Your task to perform on an android device: search for starred emails in the gmail app Image 0: 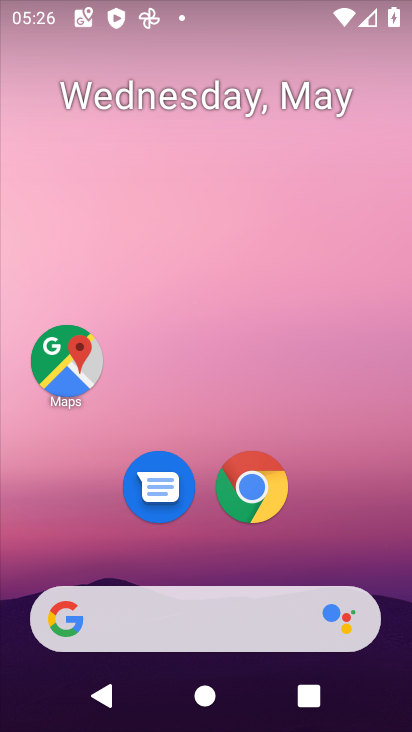
Step 0: drag from (369, 484) to (336, 177)
Your task to perform on an android device: search for starred emails in the gmail app Image 1: 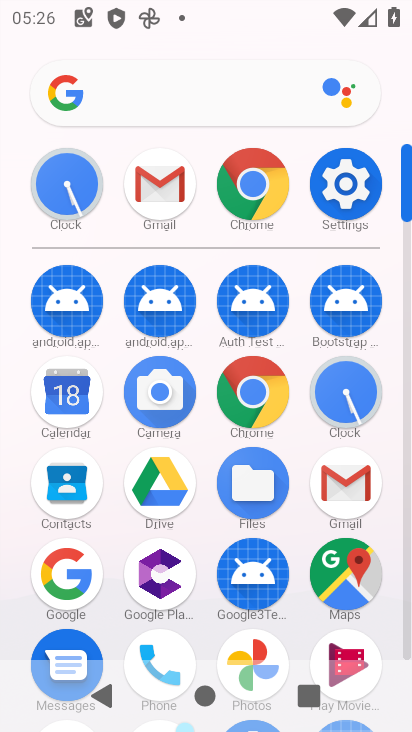
Step 1: click (169, 198)
Your task to perform on an android device: search for starred emails in the gmail app Image 2: 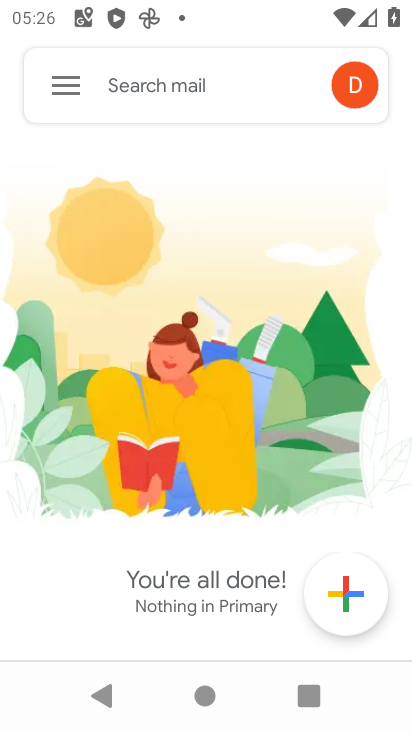
Step 2: click (185, 106)
Your task to perform on an android device: search for starred emails in the gmail app Image 3: 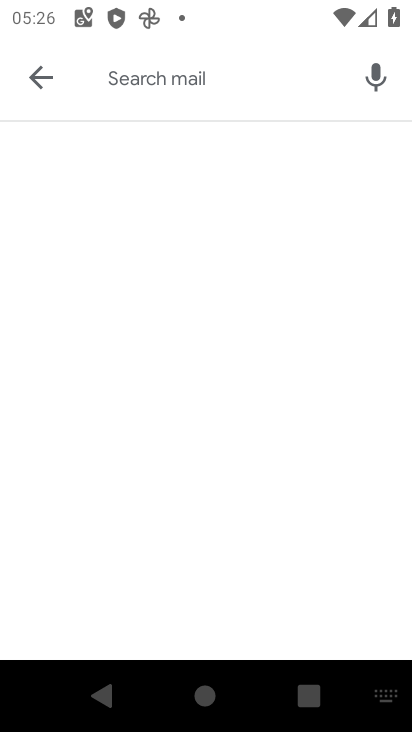
Step 3: click (41, 78)
Your task to perform on an android device: search for starred emails in the gmail app Image 4: 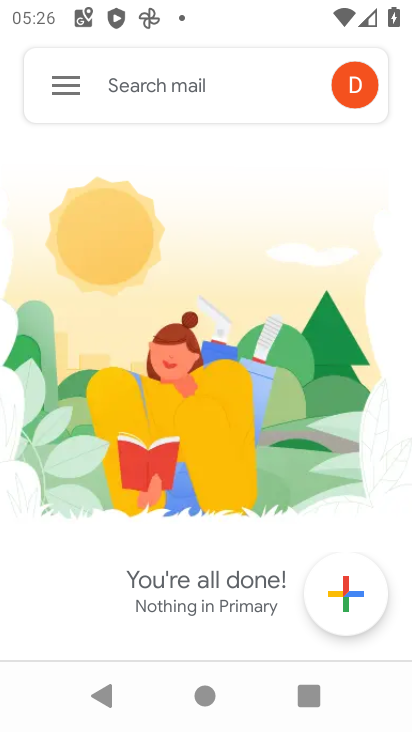
Step 4: click (41, 78)
Your task to perform on an android device: search for starred emails in the gmail app Image 5: 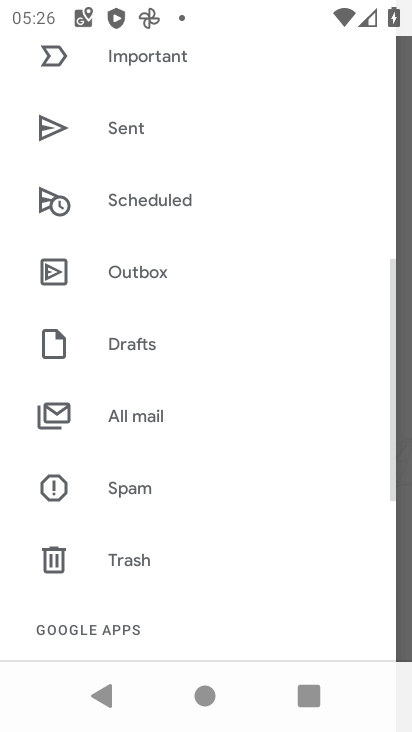
Step 5: click (127, 419)
Your task to perform on an android device: search for starred emails in the gmail app Image 6: 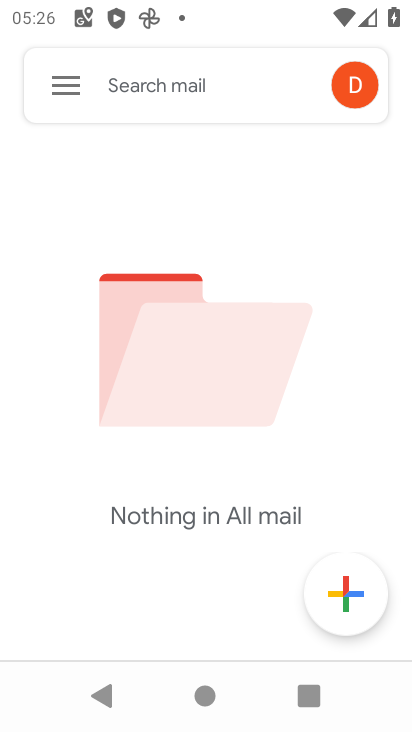
Step 6: task complete